Your task to perform on an android device: Search for Mexican restaurants on Maps Image 0: 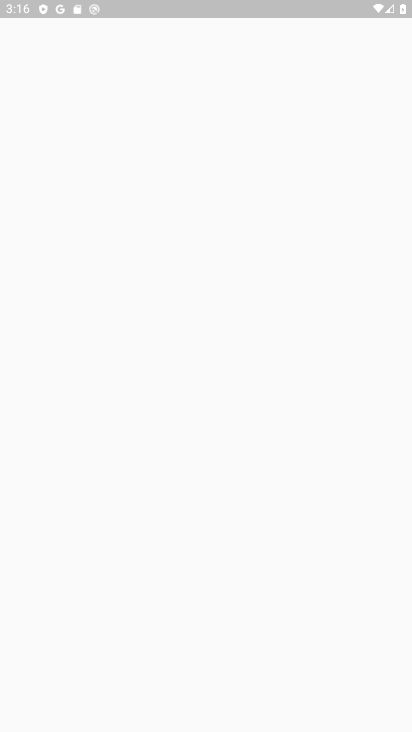
Step 0: press home button
Your task to perform on an android device: Search for Mexican restaurants on Maps Image 1: 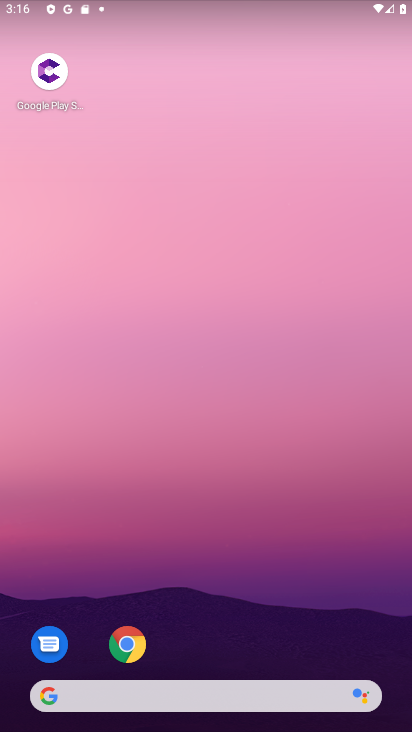
Step 1: drag from (133, 637) to (181, 623)
Your task to perform on an android device: Search for Mexican restaurants on Maps Image 2: 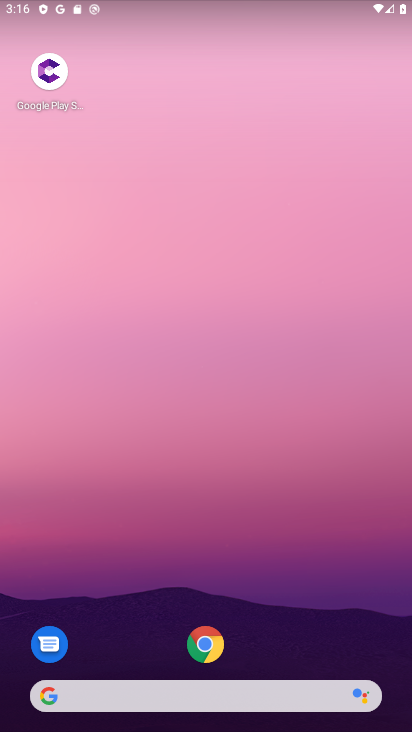
Step 2: drag from (309, 647) to (269, 311)
Your task to perform on an android device: Search for Mexican restaurants on Maps Image 3: 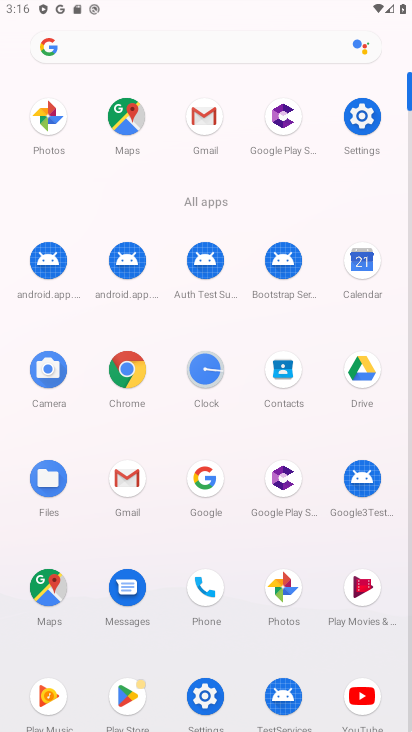
Step 3: click (121, 124)
Your task to perform on an android device: Search for Mexican restaurants on Maps Image 4: 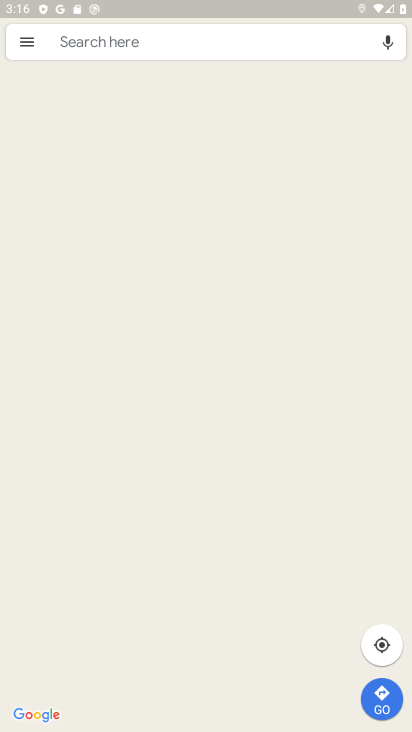
Step 4: click (114, 43)
Your task to perform on an android device: Search for Mexican restaurants on Maps Image 5: 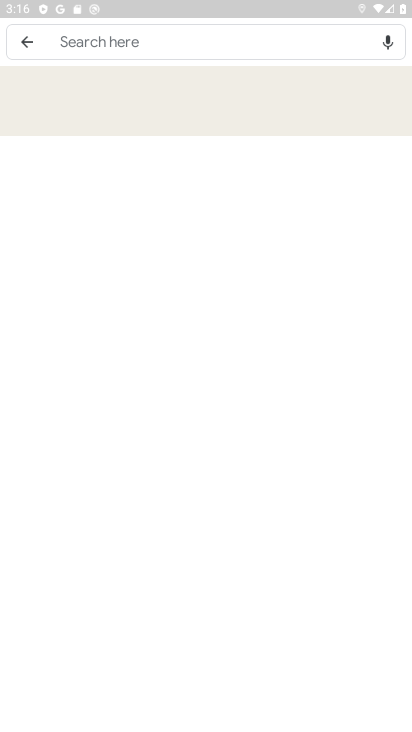
Step 5: click (106, 37)
Your task to perform on an android device: Search for Mexican restaurants on Maps Image 6: 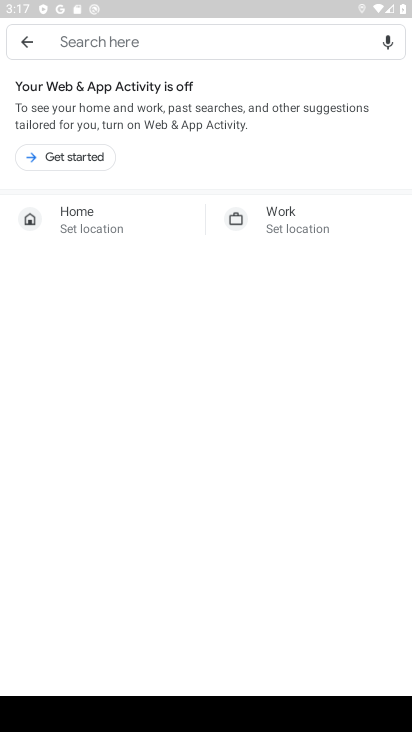
Step 6: type "Mexican restaurants"
Your task to perform on an android device: Search for Mexican restaurants on Maps Image 7: 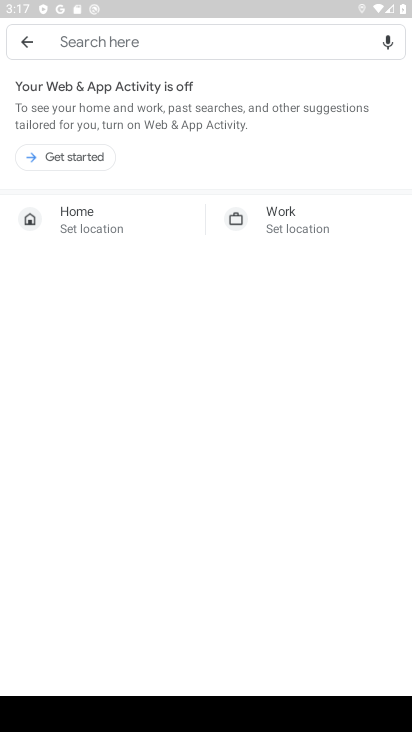
Step 7: click (102, 47)
Your task to perform on an android device: Search for Mexican restaurants on Maps Image 8: 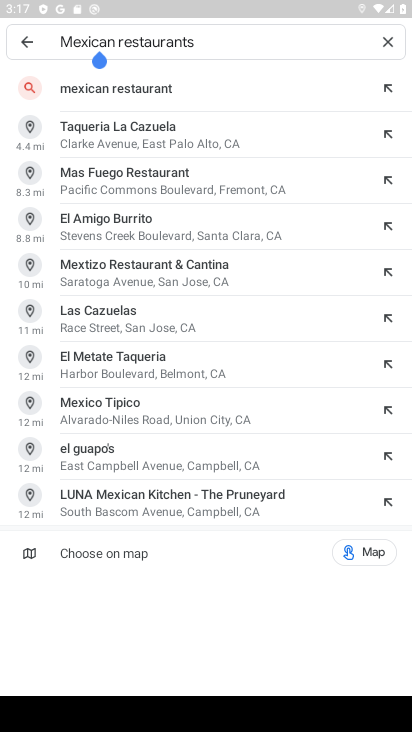
Step 8: press enter
Your task to perform on an android device: Search for Mexican restaurants on Maps Image 9: 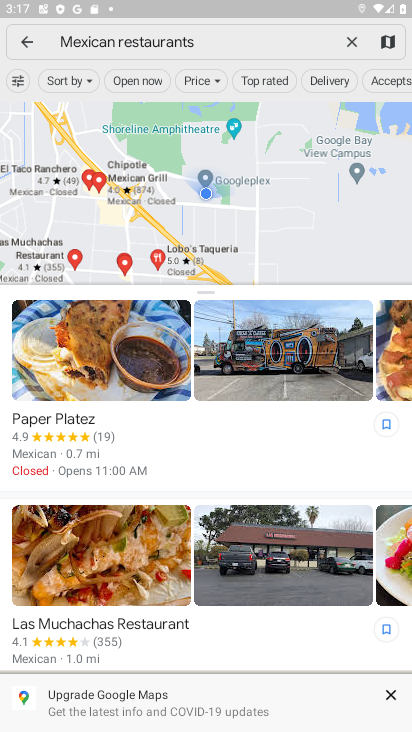
Step 9: task complete